Your task to perform on an android device: toggle location history Image 0: 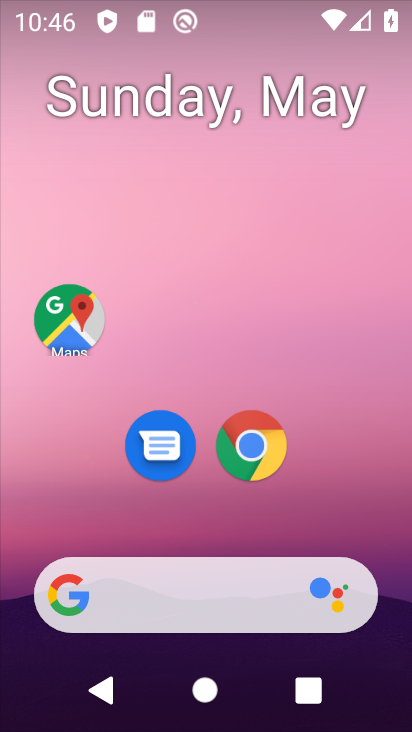
Step 0: click (323, 488)
Your task to perform on an android device: toggle location history Image 1: 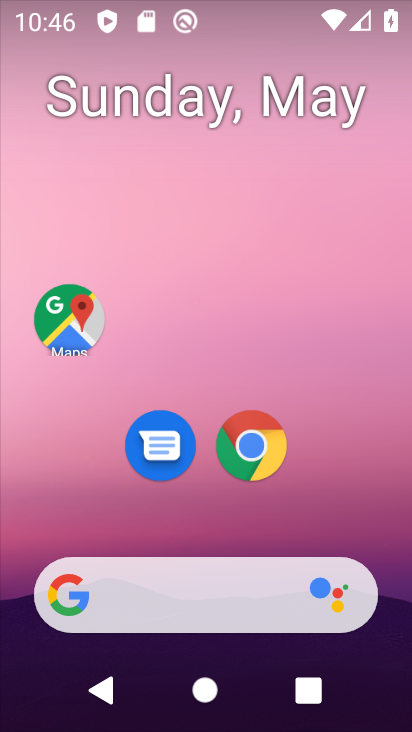
Step 1: click (51, 312)
Your task to perform on an android device: toggle location history Image 2: 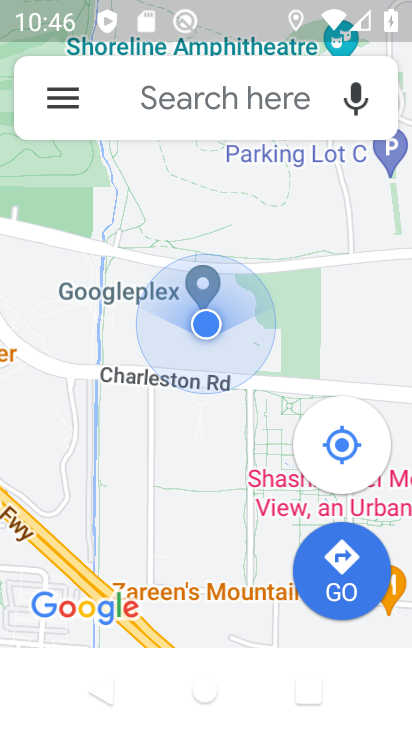
Step 2: click (74, 103)
Your task to perform on an android device: toggle location history Image 3: 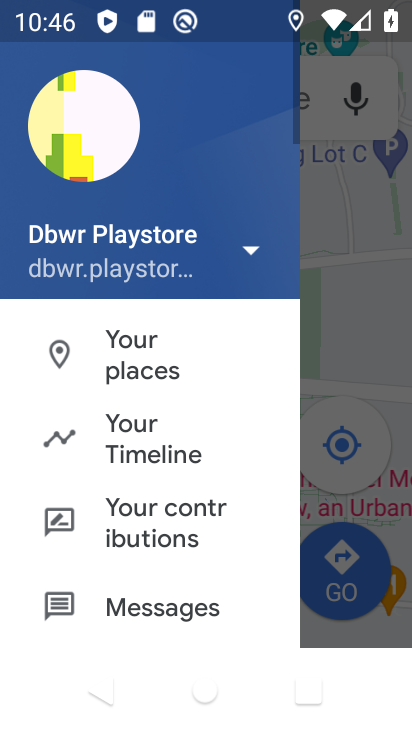
Step 3: click (148, 427)
Your task to perform on an android device: toggle location history Image 4: 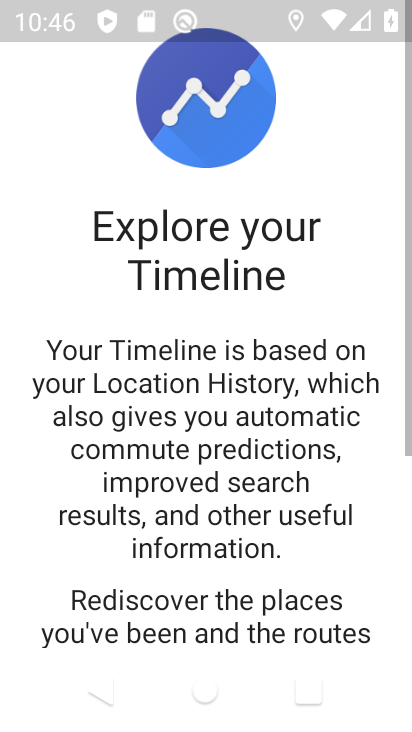
Step 4: drag from (224, 477) to (269, 104)
Your task to perform on an android device: toggle location history Image 5: 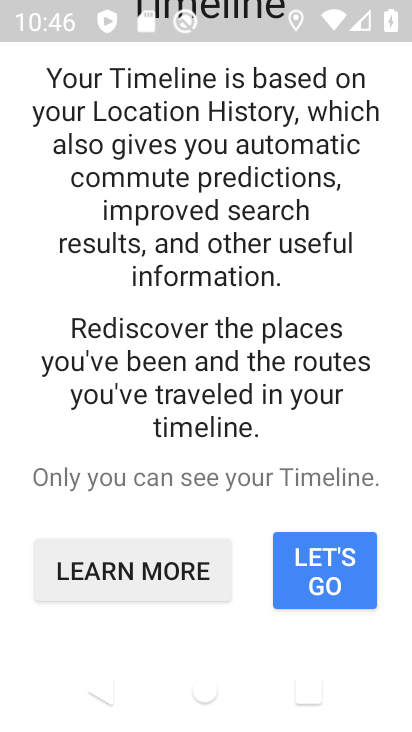
Step 5: click (295, 563)
Your task to perform on an android device: toggle location history Image 6: 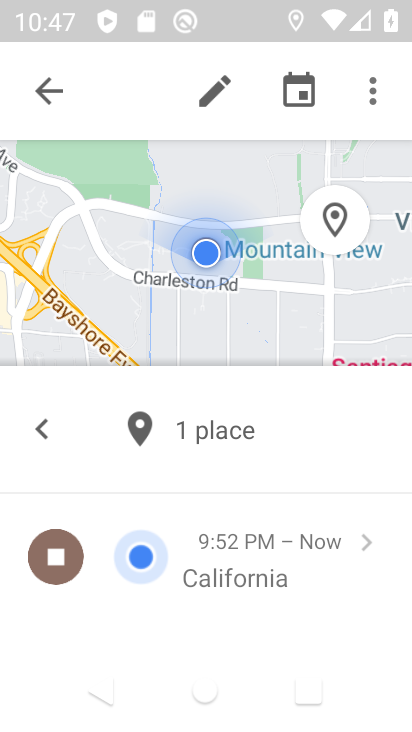
Step 6: click (371, 97)
Your task to perform on an android device: toggle location history Image 7: 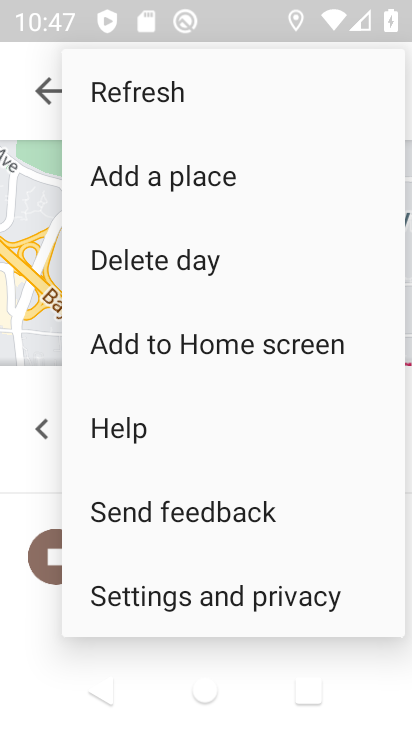
Step 7: click (223, 598)
Your task to perform on an android device: toggle location history Image 8: 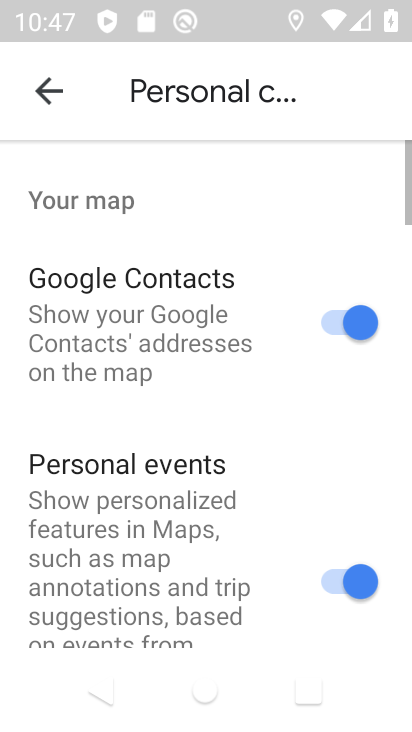
Step 8: drag from (286, 538) to (334, 189)
Your task to perform on an android device: toggle location history Image 9: 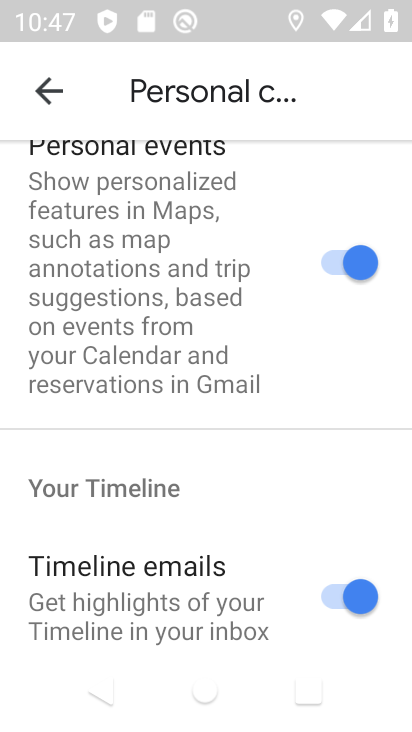
Step 9: drag from (268, 586) to (282, 204)
Your task to perform on an android device: toggle location history Image 10: 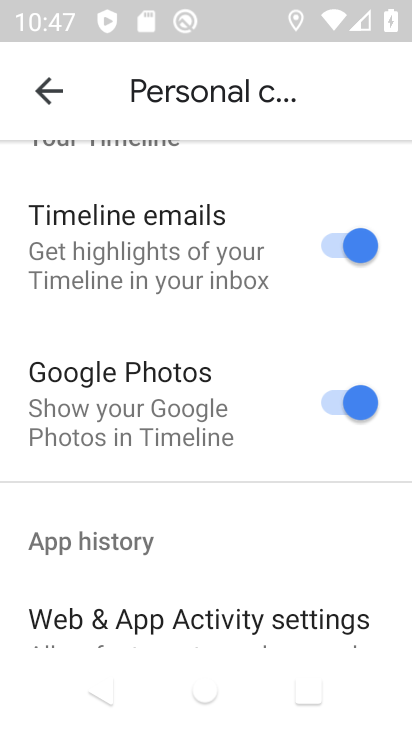
Step 10: drag from (282, 553) to (303, 135)
Your task to perform on an android device: toggle location history Image 11: 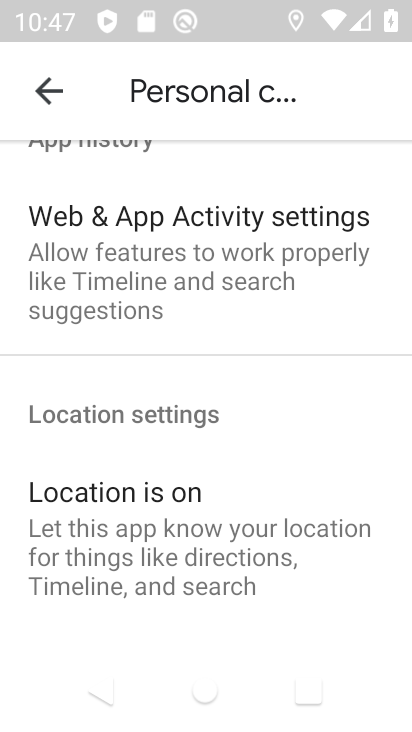
Step 11: drag from (276, 610) to (302, 250)
Your task to perform on an android device: toggle location history Image 12: 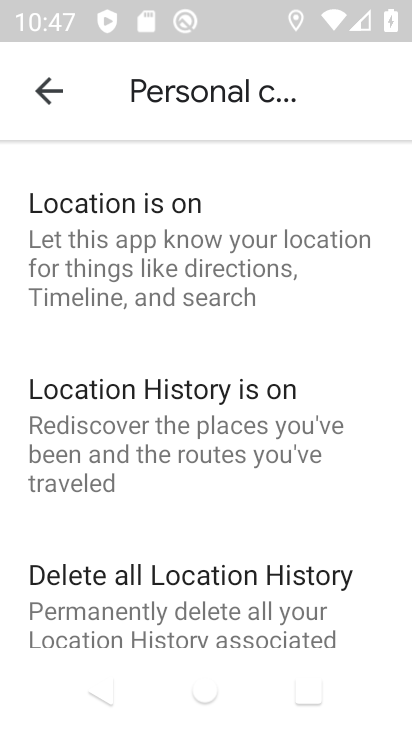
Step 12: click (221, 398)
Your task to perform on an android device: toggle location history Image 13: 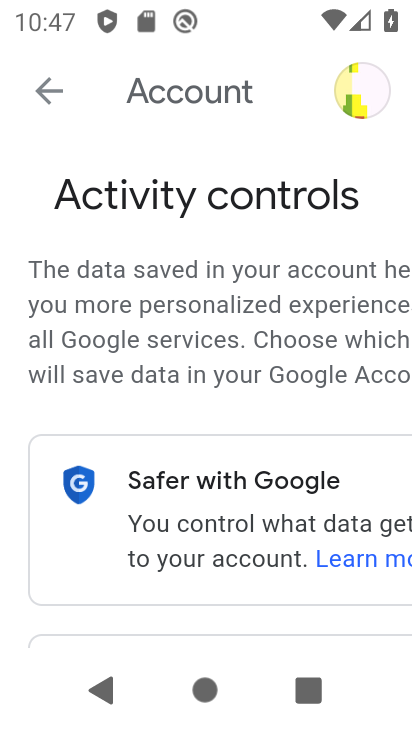
Step 13: drag from (277, 558) to (336, 60)
Your task to perform on an android device: toggle location history Image 14: 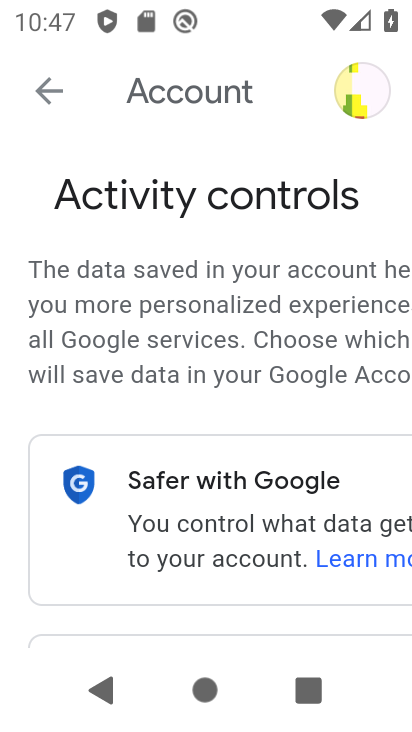
Step 14: drag from (291, 593) to (364, 201)
Your task to perform on an android device: toggle location history Image 15: 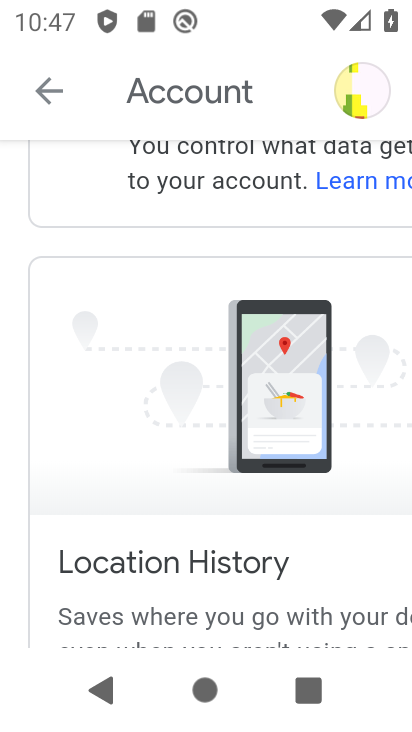
Step 15: drag from (305, 564) to (353, 157)
Your task to perform on an android device: toggle location history Image 16: 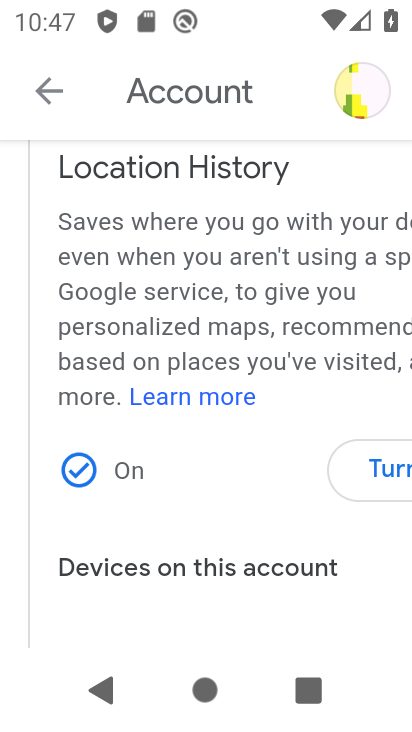
Step 16: click (380, 467)
Your task to perform on an android device: toggle location history Image 17: 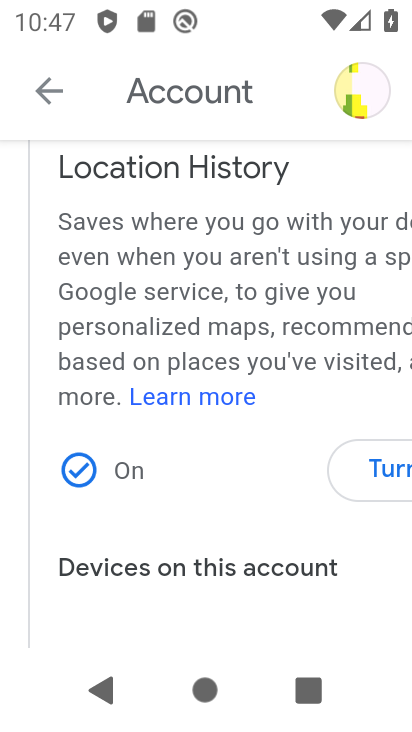
Step 17: click (380, 467)
Your task to perform on an android device: toggle location history Image 18: 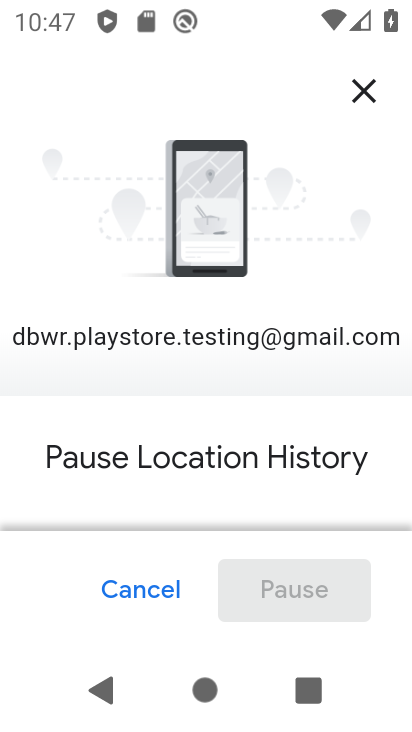
Step 18: drag from (291, 506) to (327, 102)
Your task to perform on an android device: toggle location history Image 19: 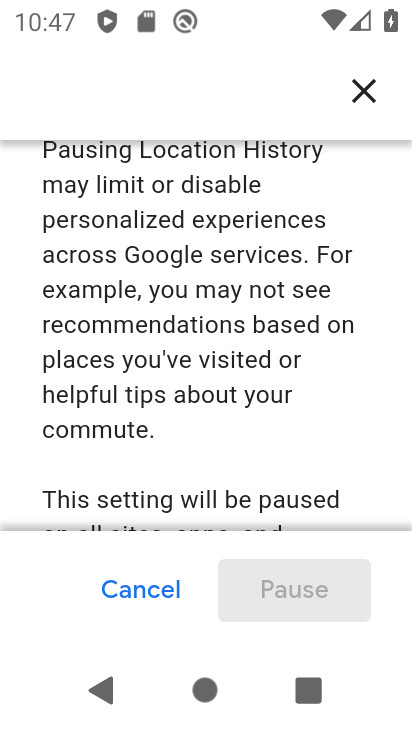
Step 19: drag from (316, 498) to (367, 114)
Your task to perform on an android device: toggle location history Image 20: 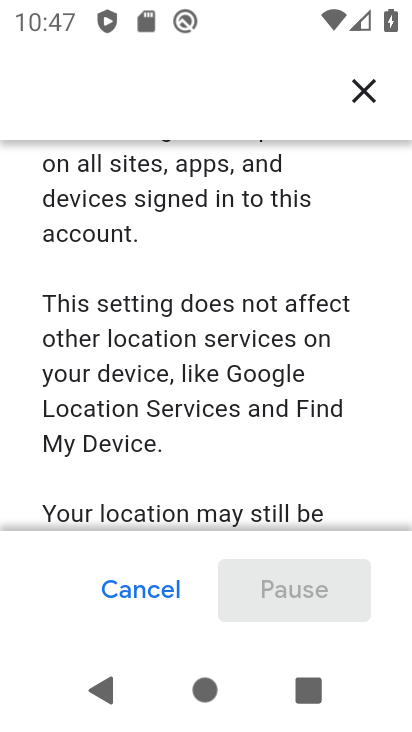
Step 20: drag from (338, 472) to (369, 54)
Your task to perform on an android device: toggle location history Image 21: 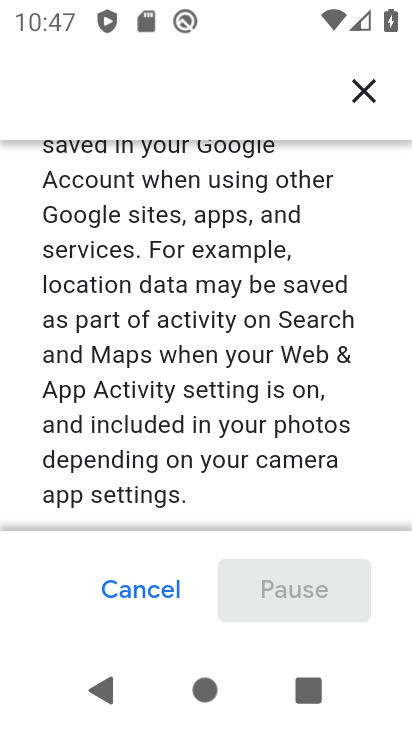
Step 21: drag from (318, 458) to (344, 97)
Your task to perform on an android device: toggle location history Image 22: 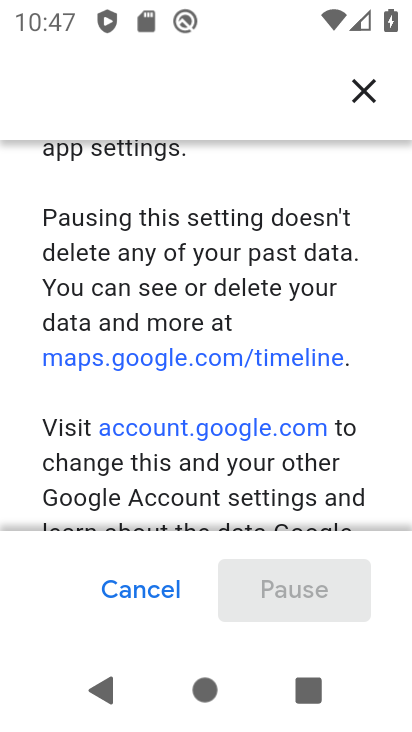
Step 22: drag from (251, 496) to (321, 69)
Your task to perform on an android device: toggle location history Image 23: 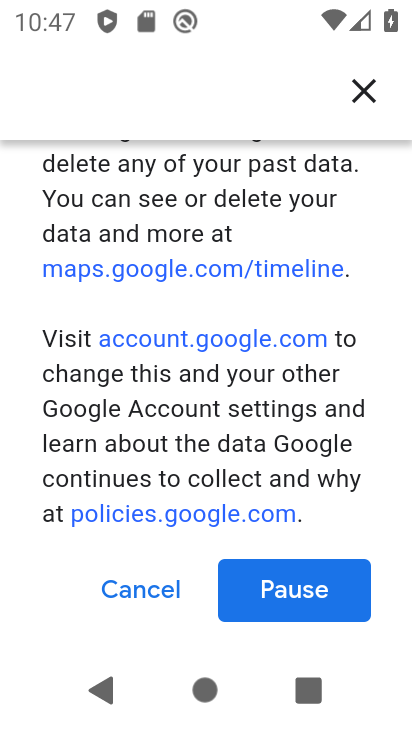
Step 23: click (309, 588)
Your task to perform on an android device: toggle location history Image 24: 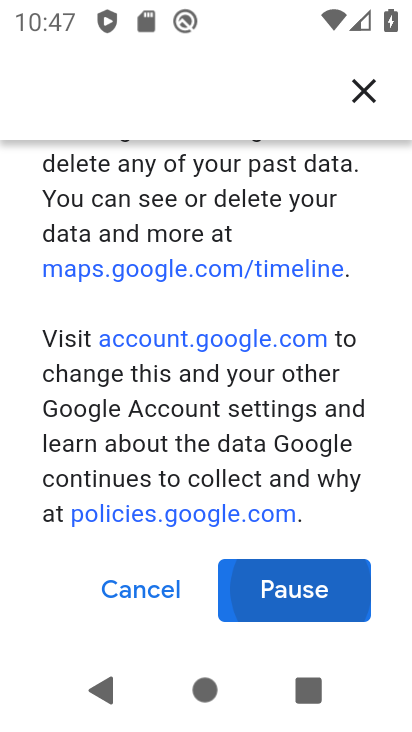
Step 24: click (309, 588)
Your task to perform on an android device: toggle location history Image 25: 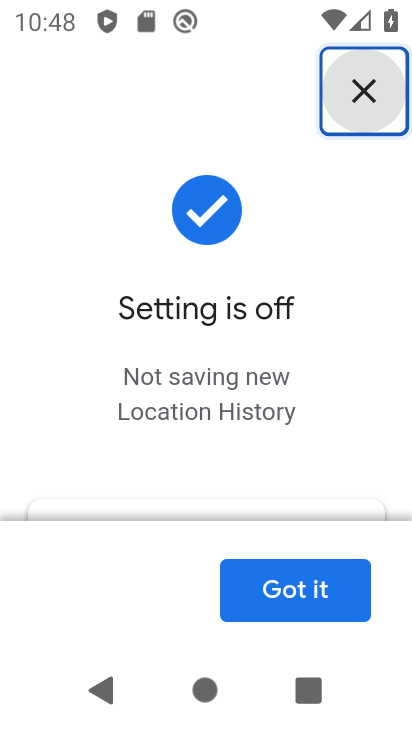
Step 25: click (308, 591)
Your task to perform on an android device: toggle location history Image 26: 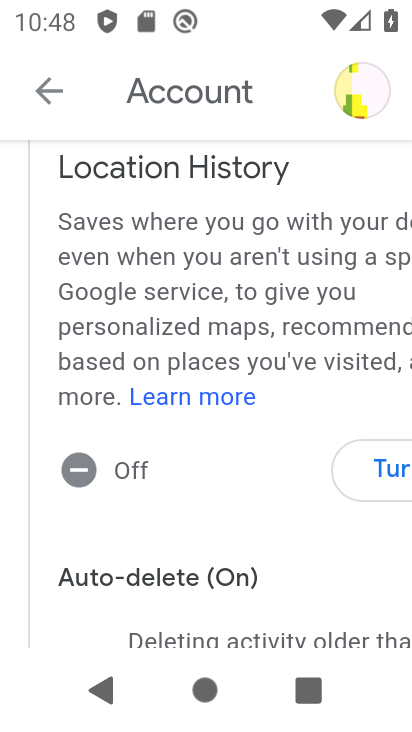
Step 26: task complete